Your task to perform on an android device: Set the phone to "Do not disturb". Image 0: 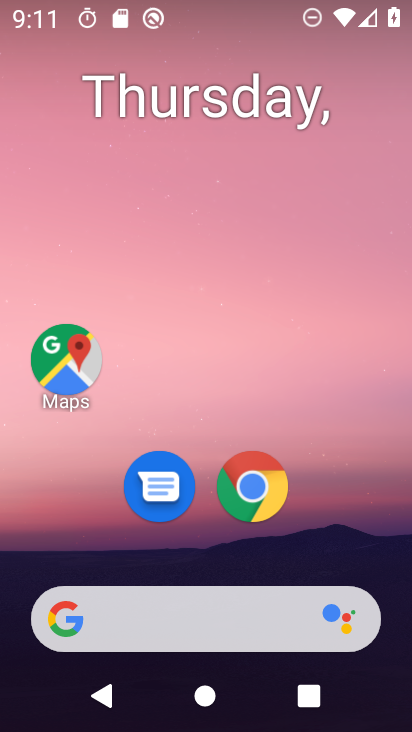
Step 0: drag from (329, 24) to (202, 599)
Your task to perform on an android device: Set the phone to "Do not disturb". Image 1: 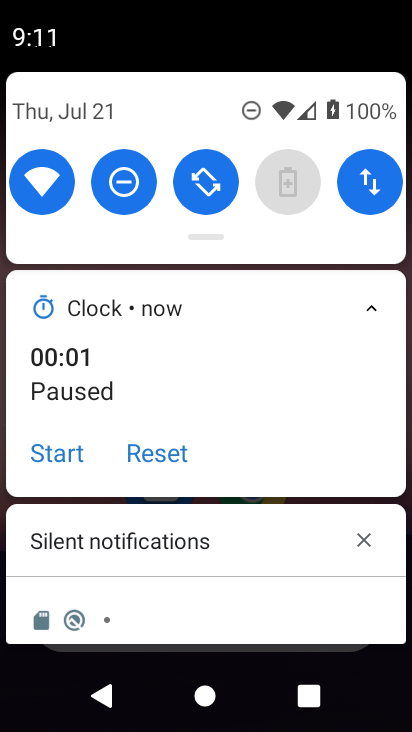
Step 1: task complete